Your task to perform on an android device: Add logitech g933 to the cart on amazon, then select checkout. Image 0: 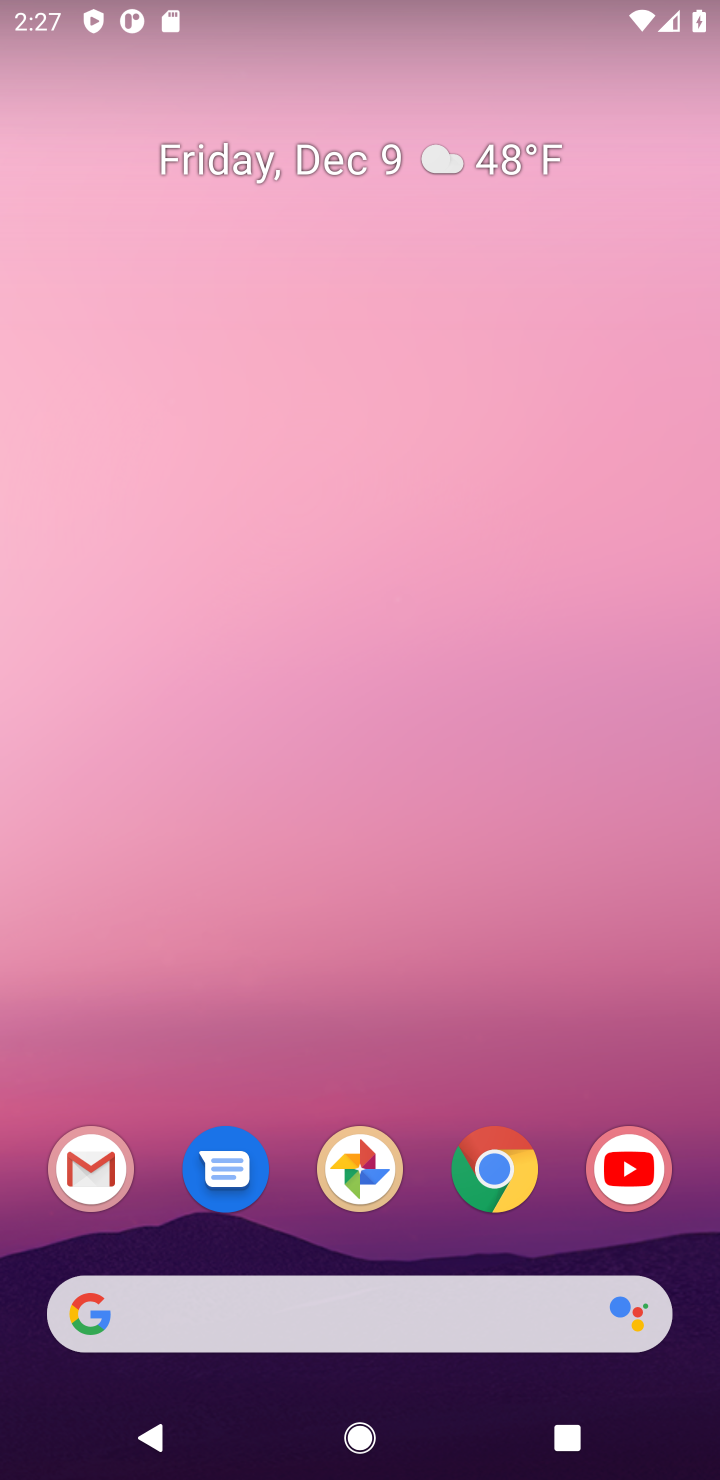
Step 0: click (484, 1188)
Your task to perform on an android device: Add logitech g933 to the cart on amazon, then select checkout. Image 1: 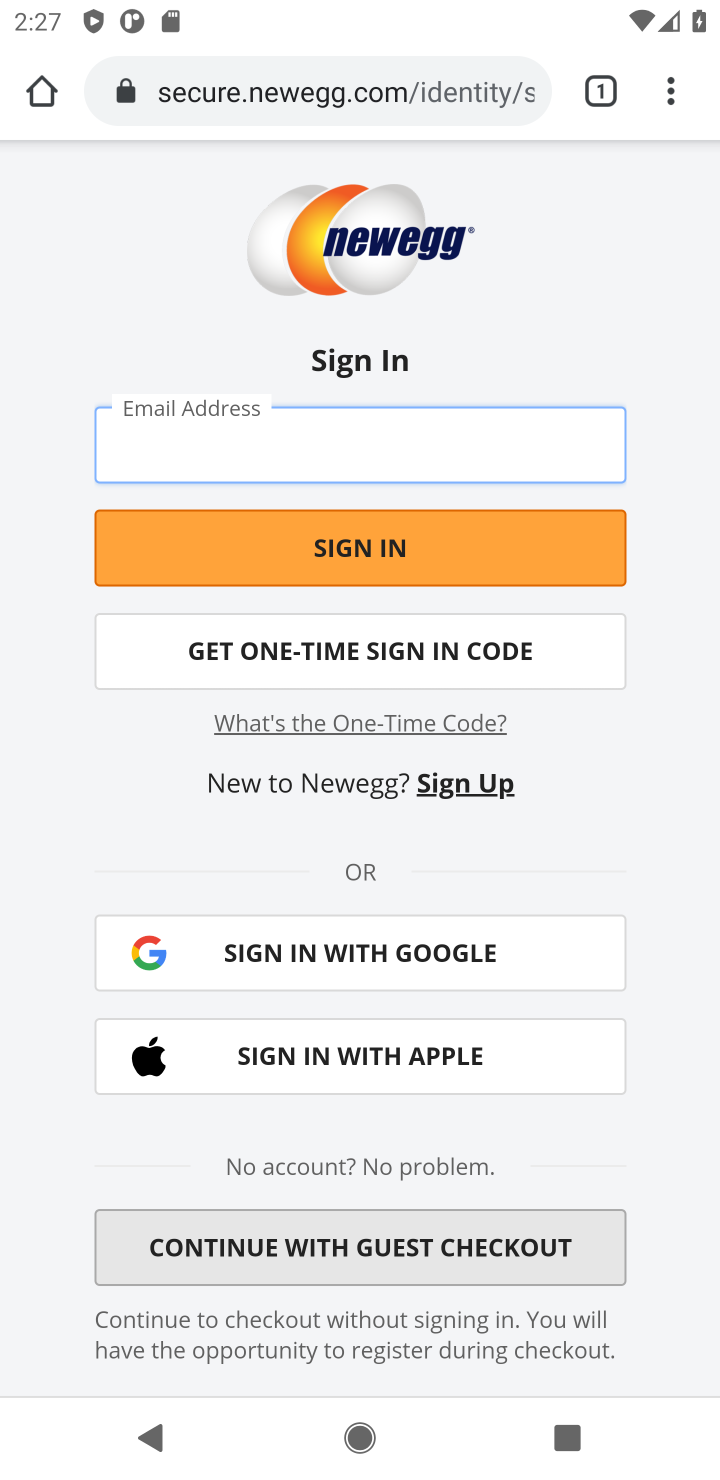
Step 1: click (444, 86)
Your task to perform on an android device: Add logitech g933 to the cart on amazon, then select checkout. Image 2: 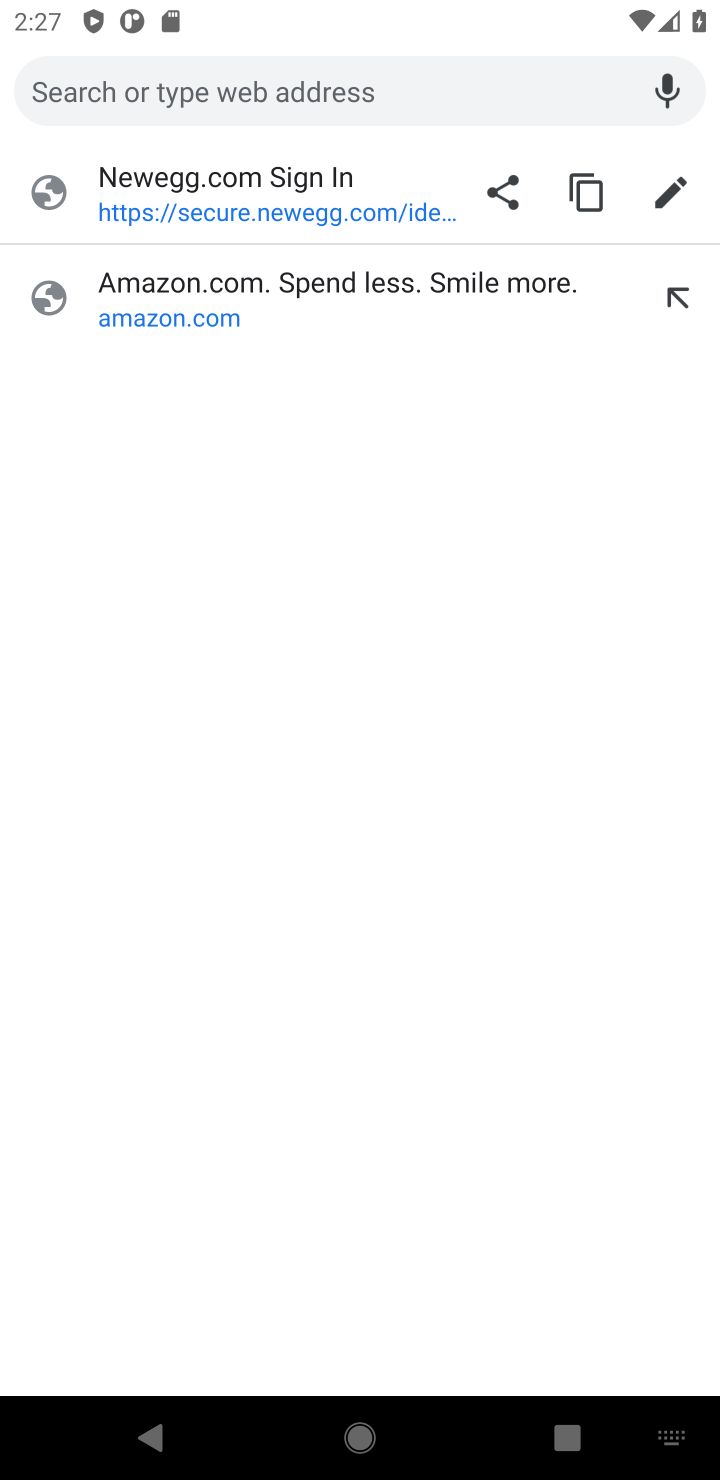
Step 2: press enter
Your task to perform on an android device: Add logitech g933 to the cart on amazon, then select checkout. Image 3: 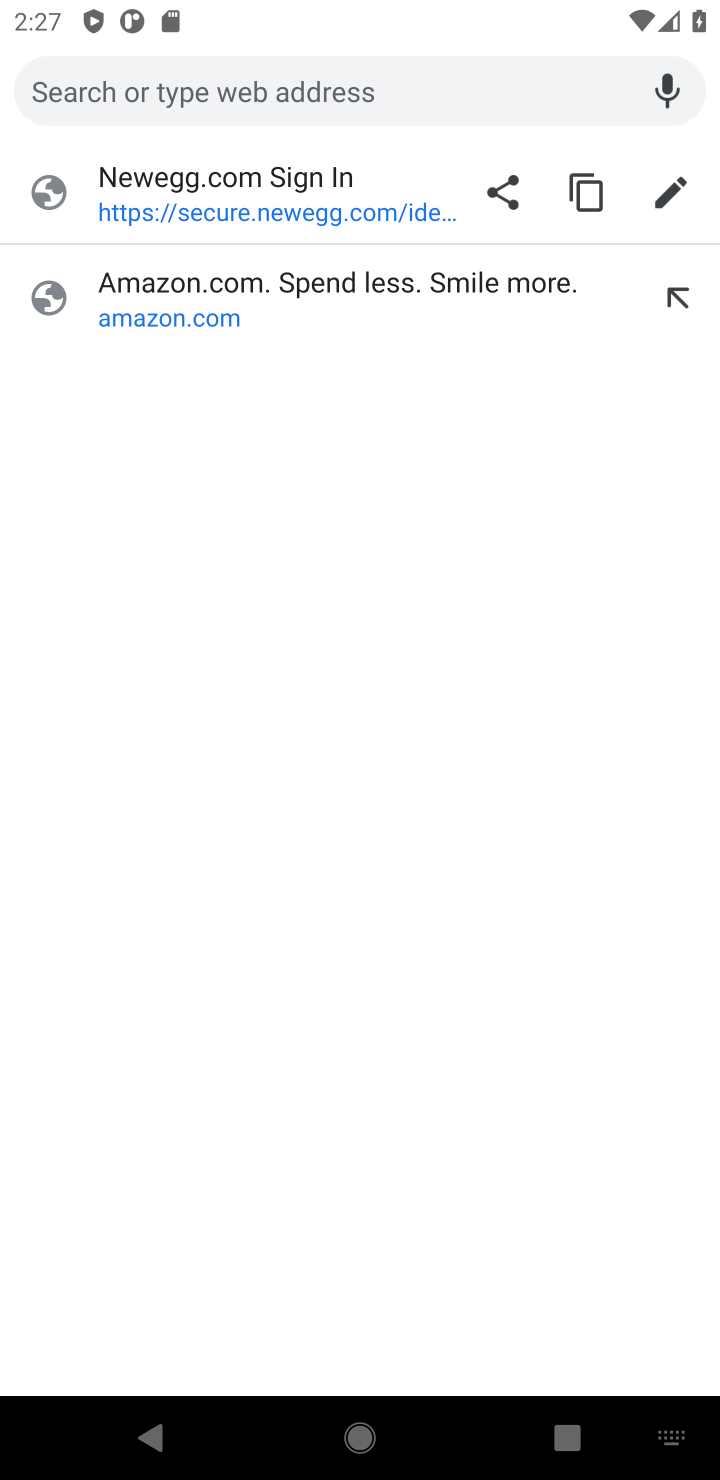
Step 3: type "amazon"
Your task to perform on an android device: Add logitech g933 to the cart on amazon, then select checkout. Image 4: 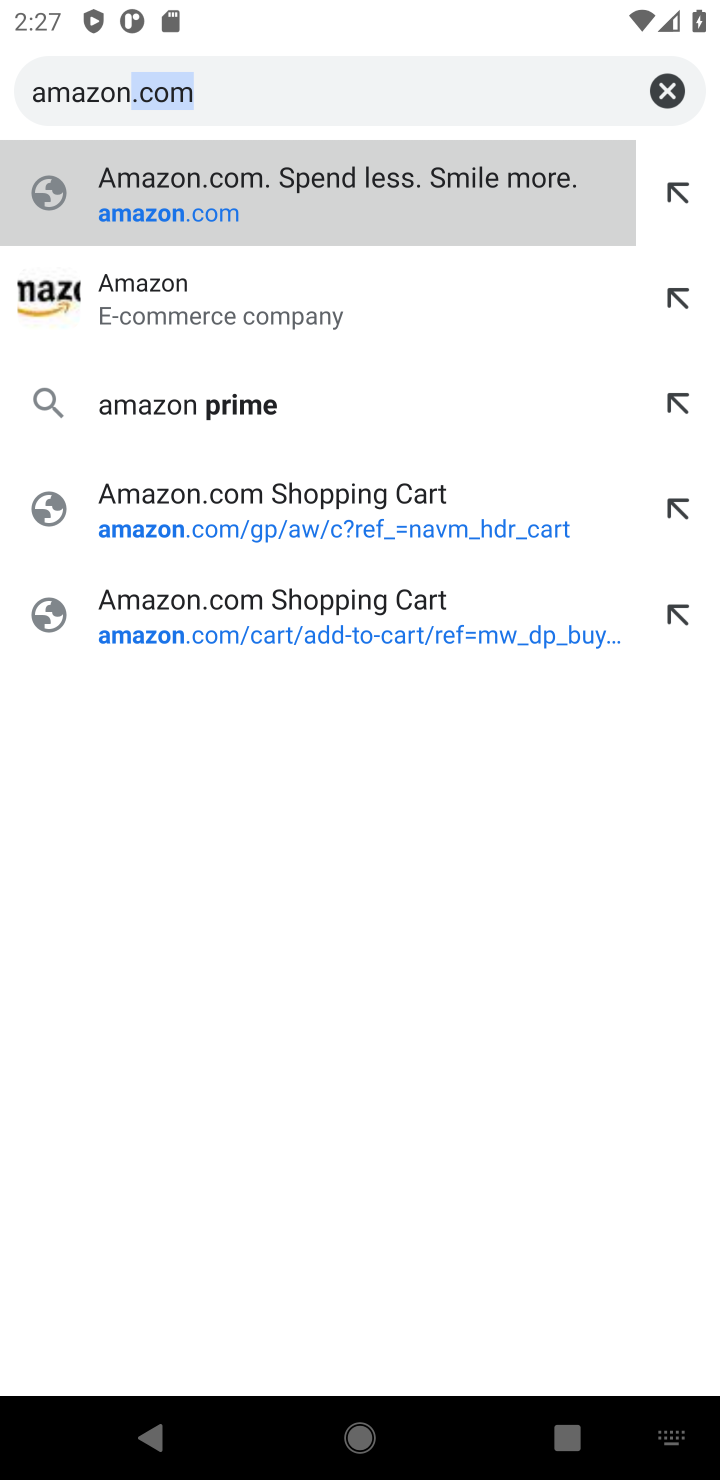
Step 4: click (416, 86)
Your task to perform on an android device: Add logitech g933 to the cart on amazon, then select checkout. Image 5: 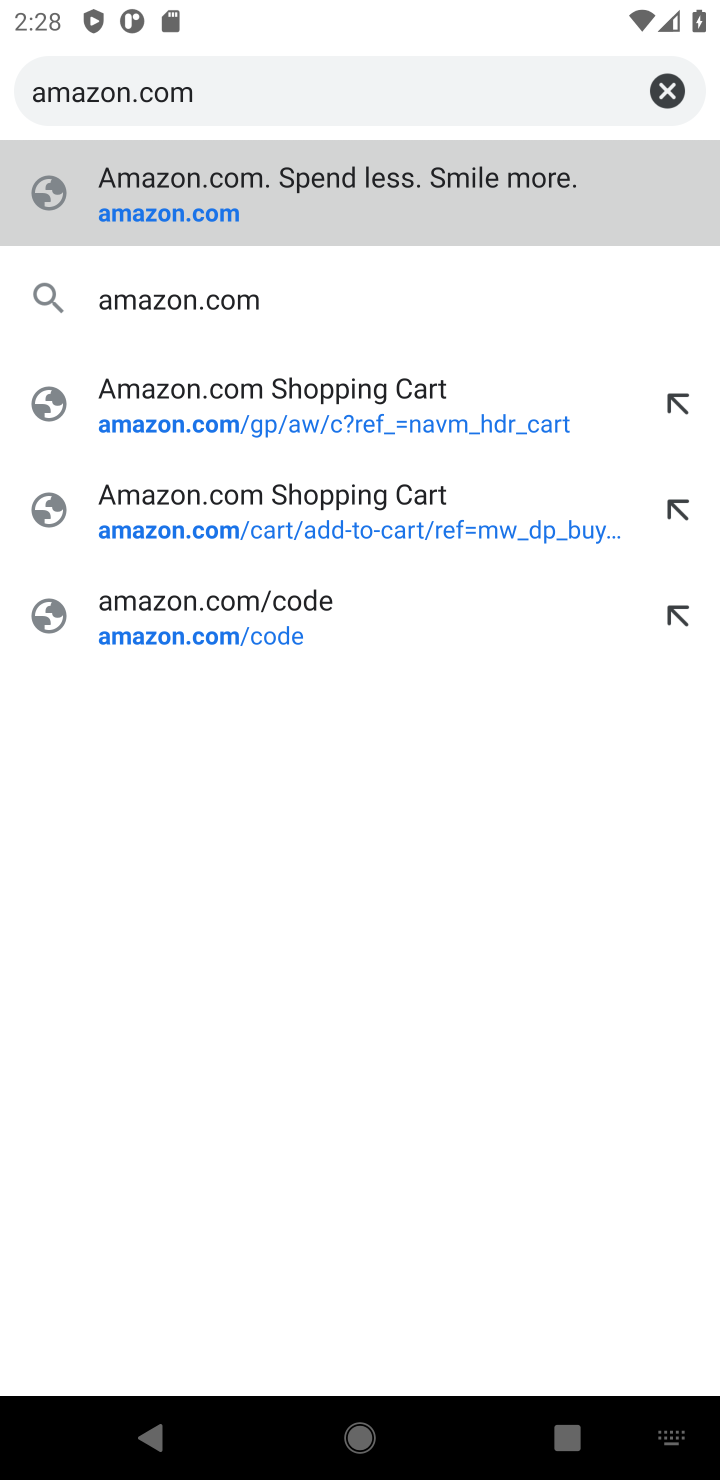
Step 5: click (202, 306)
Your task to perform on an android device: Add logitech g933 to the cart on amazon, then select checkout. Image 6: 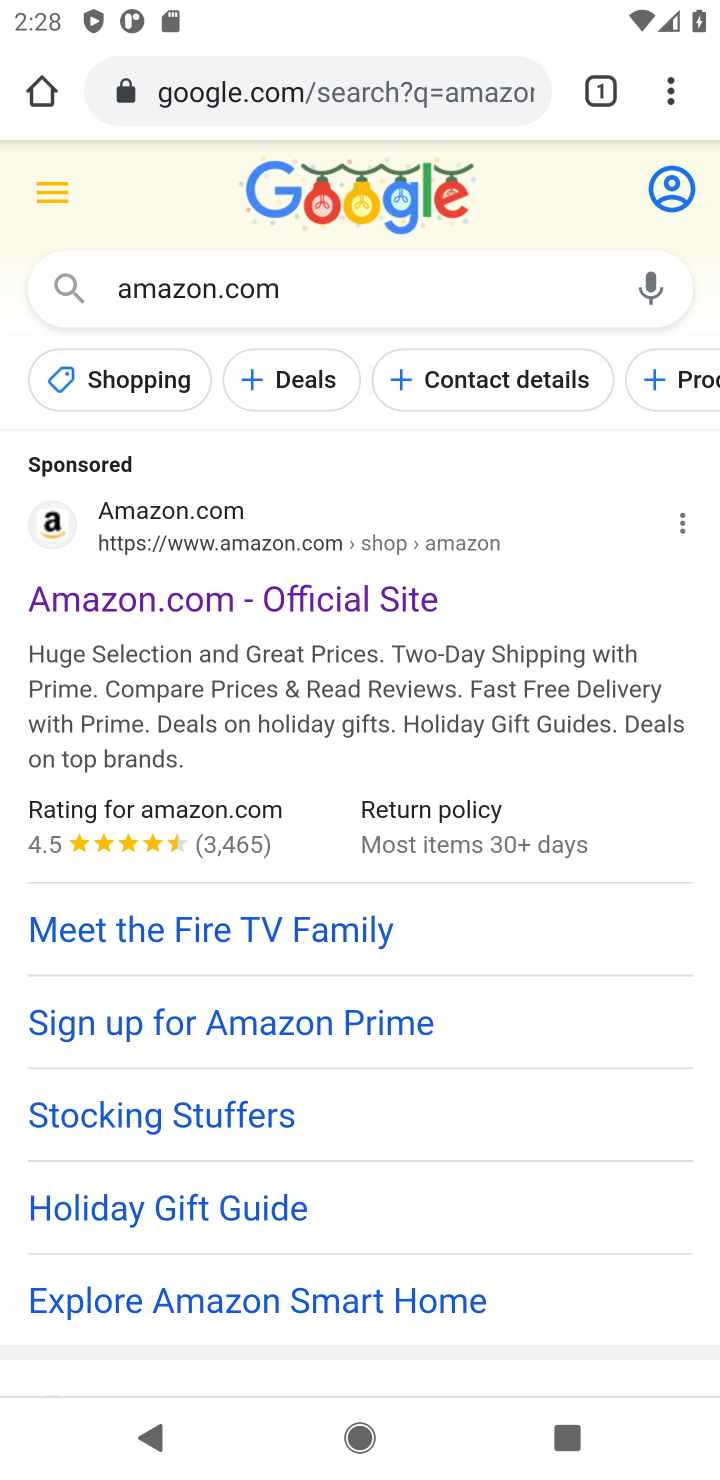
Step 6: click (231, 552)
Your task to perform on an android device: Add logitech g933 to the cart on amazon, then select checkout. Image 7: 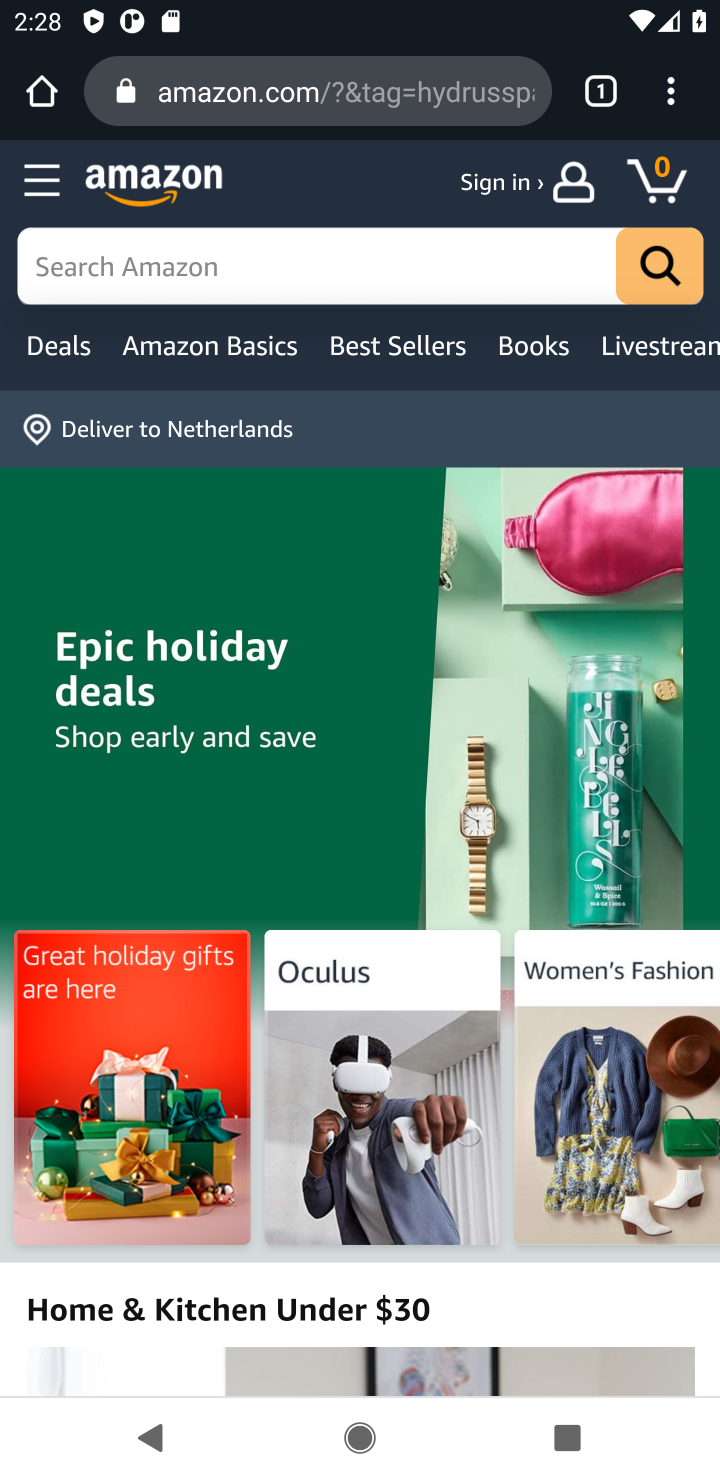
Step 7: click (416, 258)
Your task to perform on an android device: Add logitech g933 to the cart on amazon, then select checkout. Image 8: 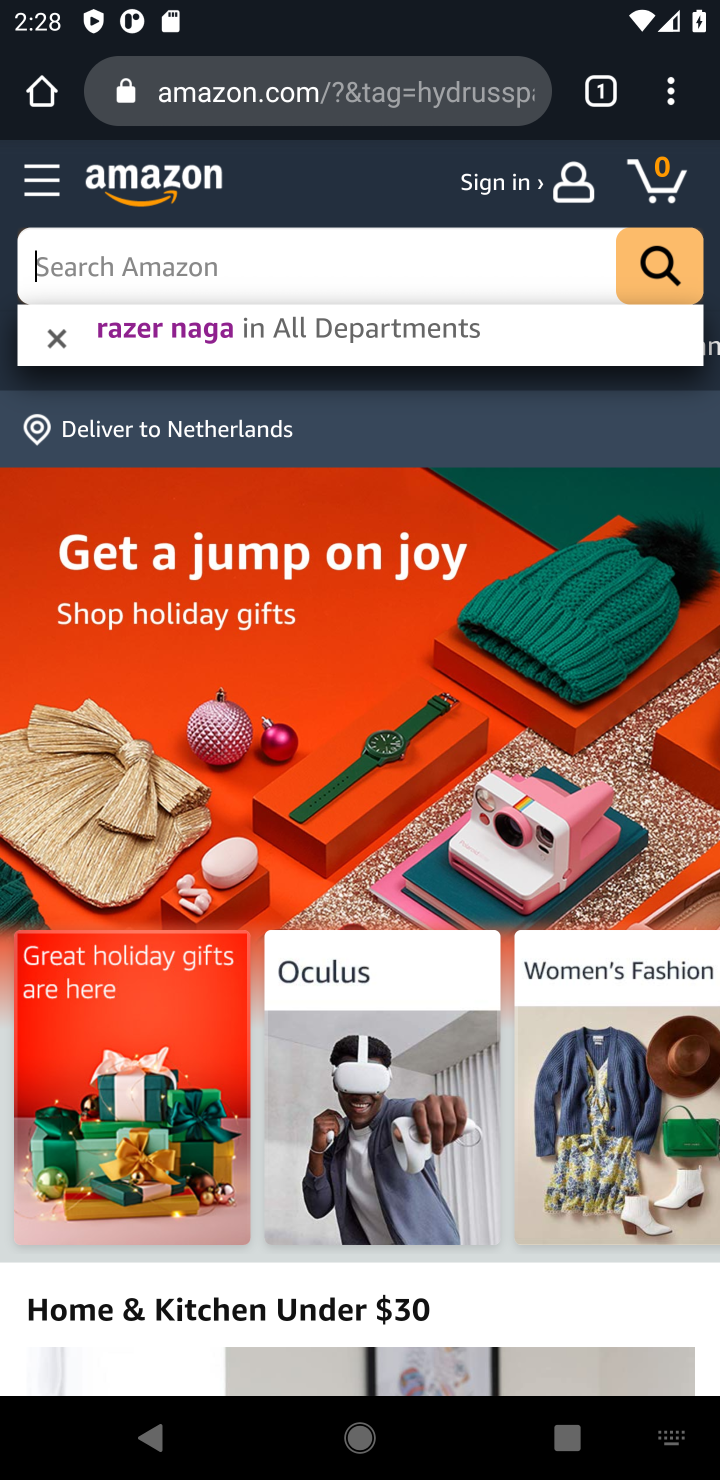
Step 8: press enter
Your task to perform on an android device: Add logitech g933 to the cart on amazon, then select checkout. Image 9: 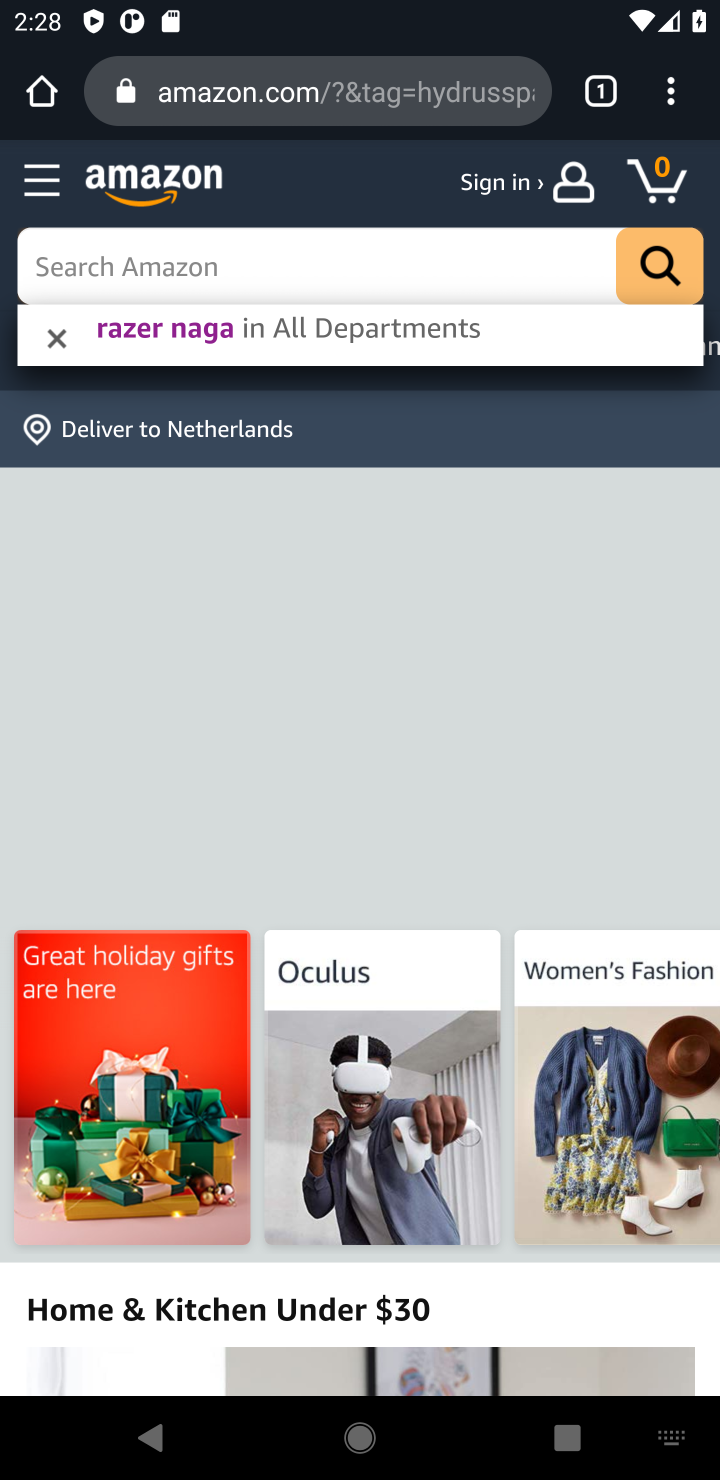
Step 9: type "logitech g933"
Your task to perform on an android device: Add logitech g933 to the cart on amazon, then select checkout. Image 10: 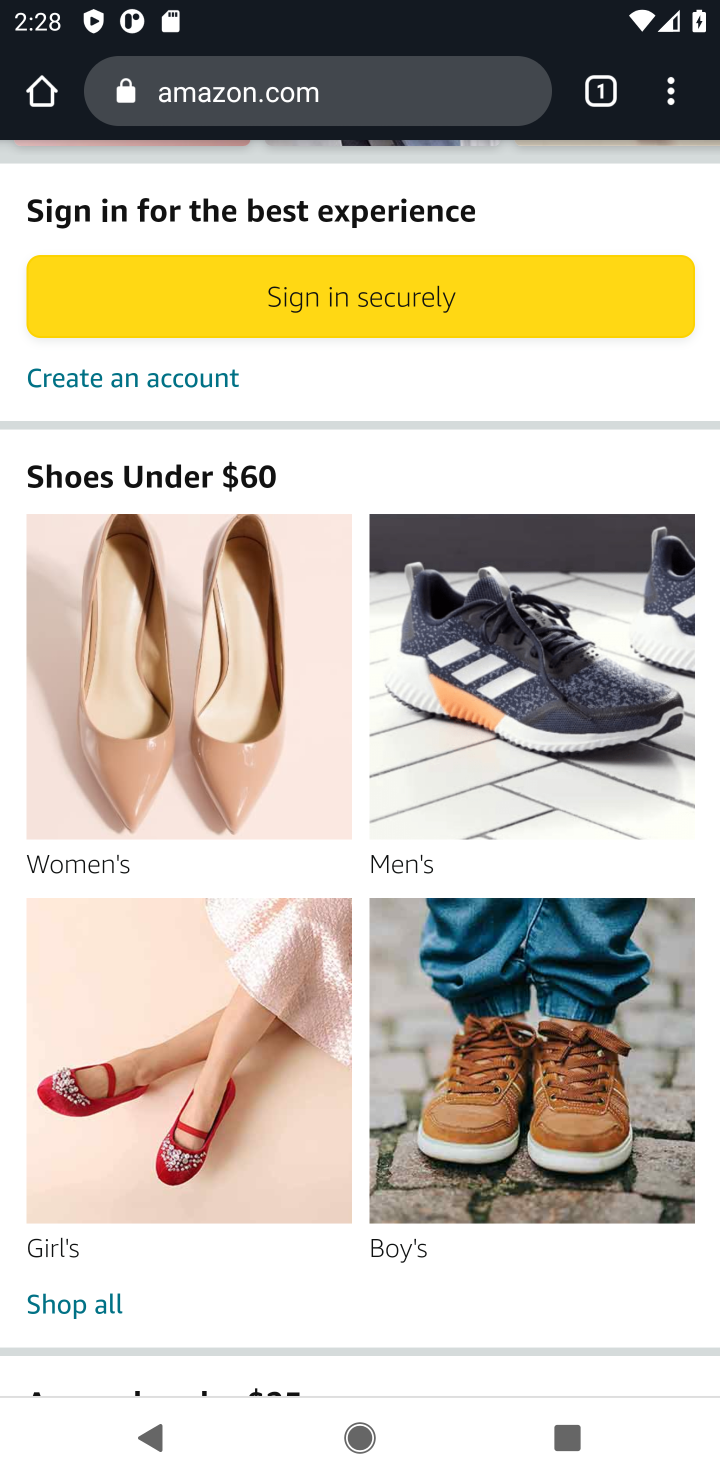
Step 10: press back button
Your task to perform on an android device: Add logitech g933 to the cart on amazon, then select checkout. Image 11: 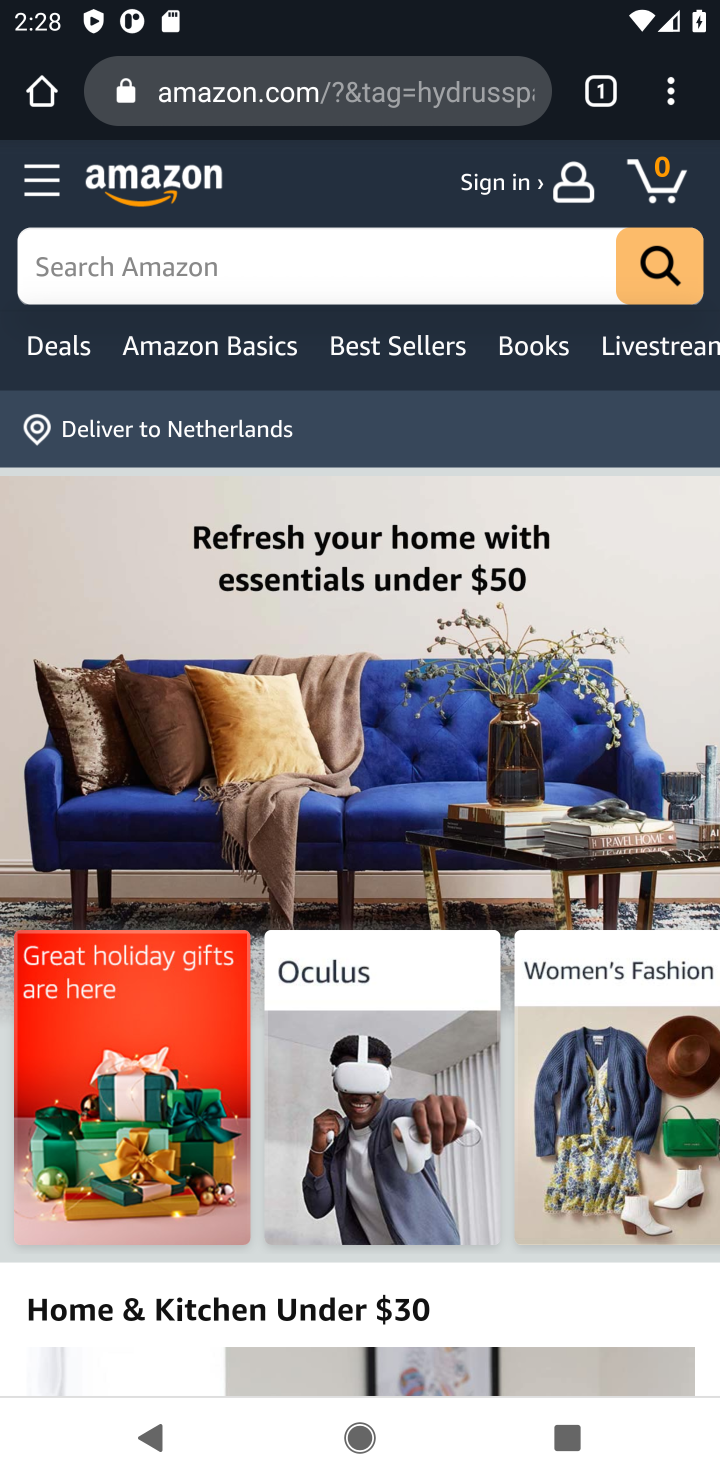
Step 11: click (521, 263)
Your task to perform on an android device: Add logitech g933 to the cart on amazon, then select checkout. Image 12: 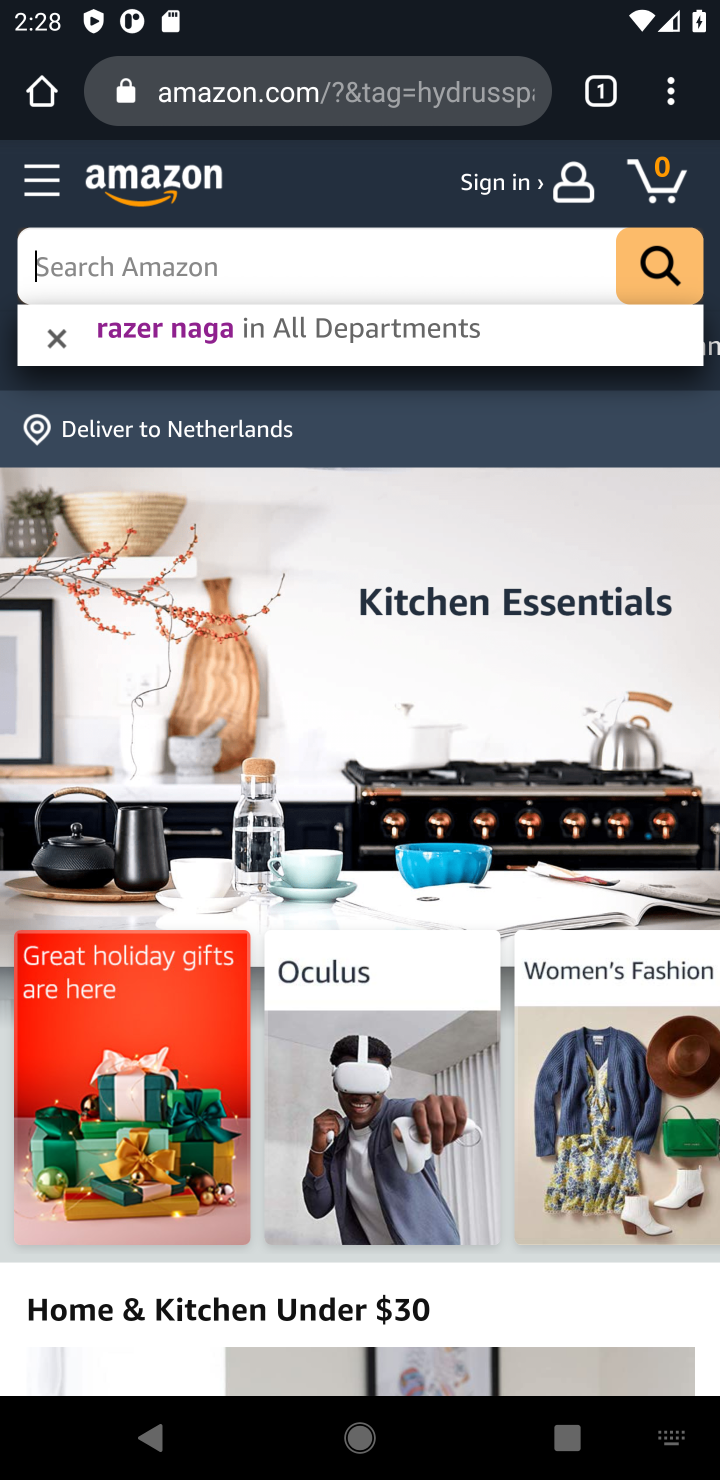
Step 12: press enter
Your task to perform on an android device: Add logitech g933 to the cart on amazon, then select checkout. Image 13: 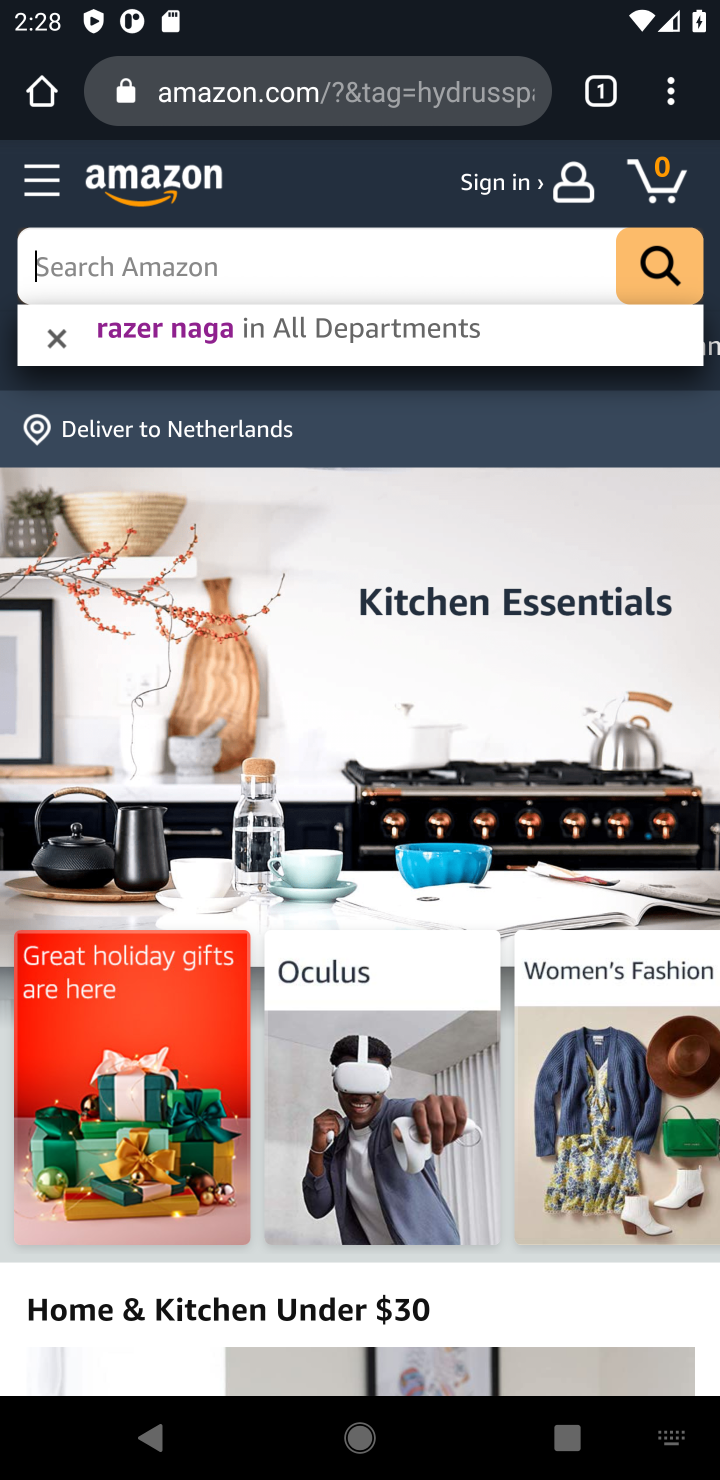
Step 13: type "logitech g933"
Your task to perform on an android device: Add logitech g933 to the cart on amazon, then select checkout. Image 14: 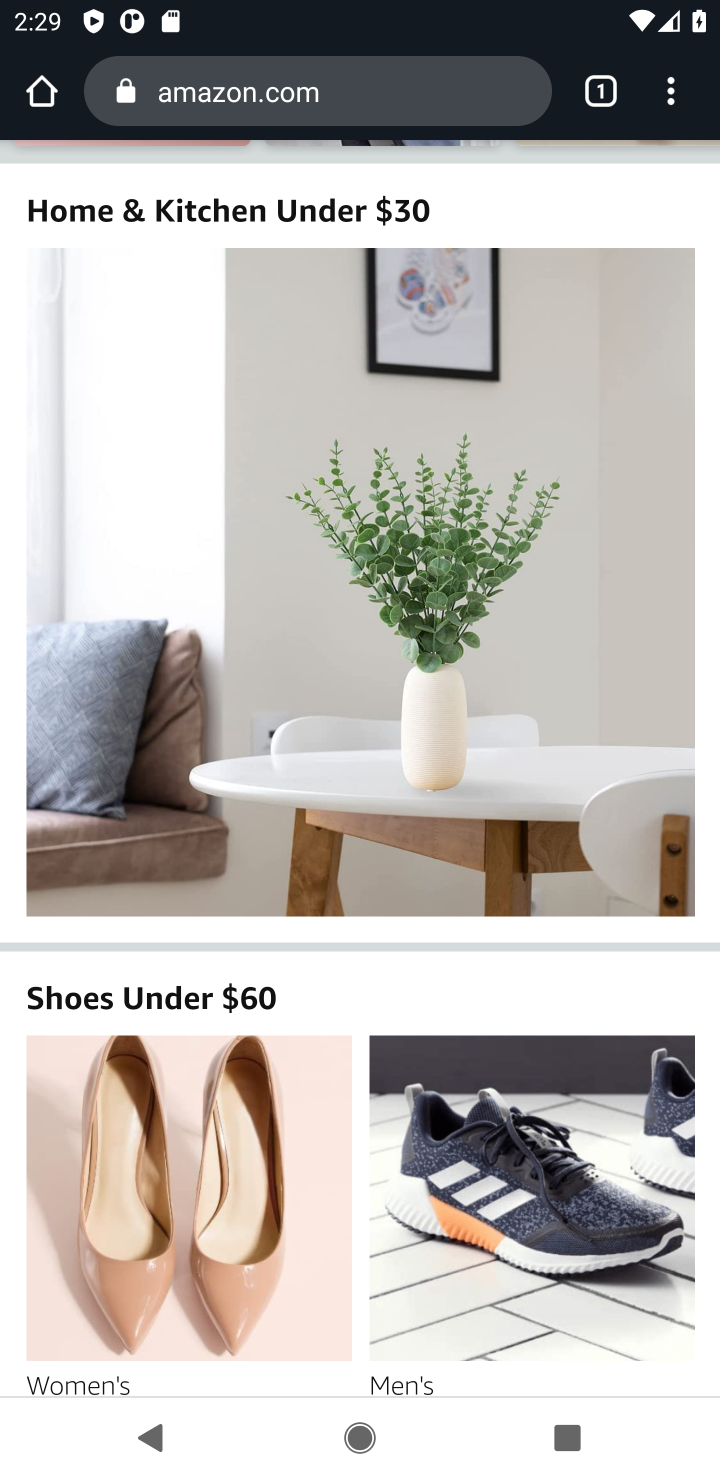
Step 14: press back button
Your task to perform on an android device: Add logitech g933 to the cart on amazon, then select checkout. Image 15: 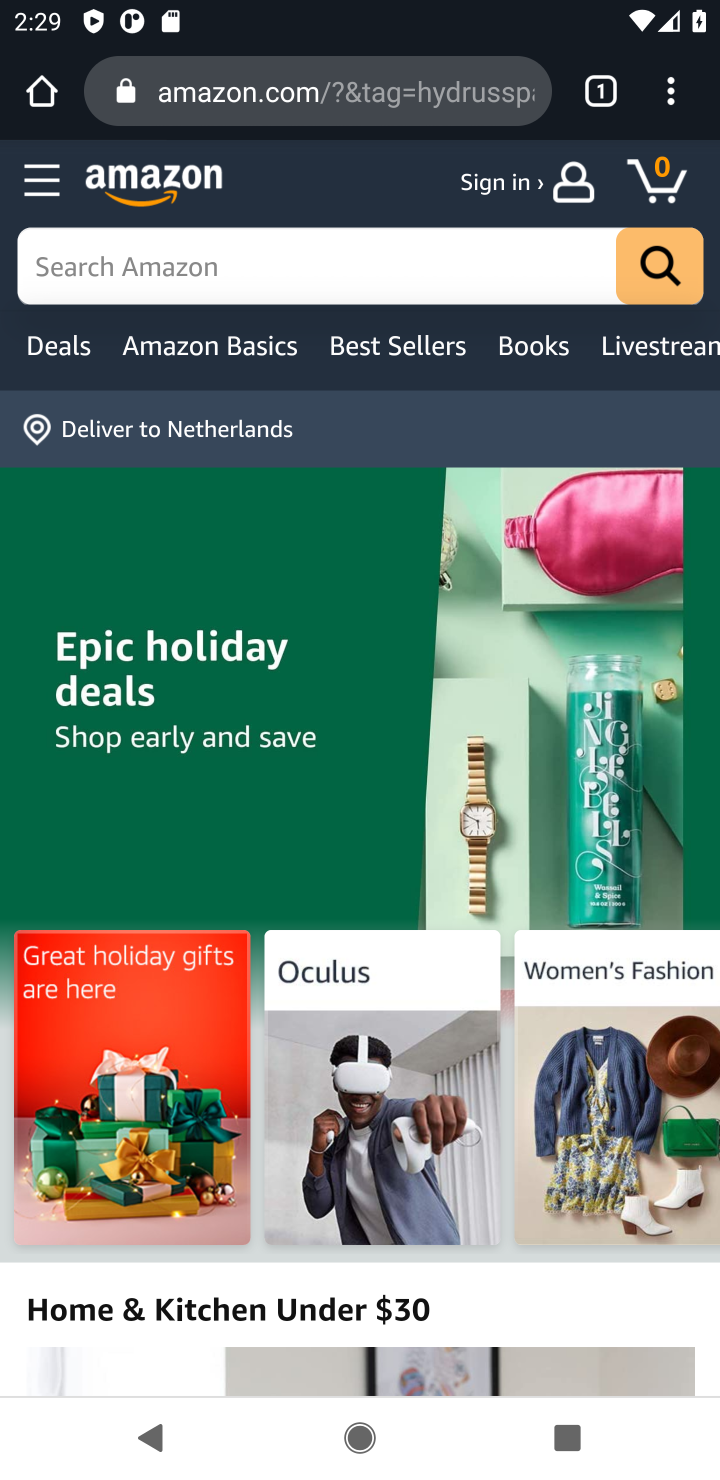
Step 15: click (506, 269)
Your task to perform on an android device: Add logitech g933 to the cart on amazon, then select checkout. Image 16: 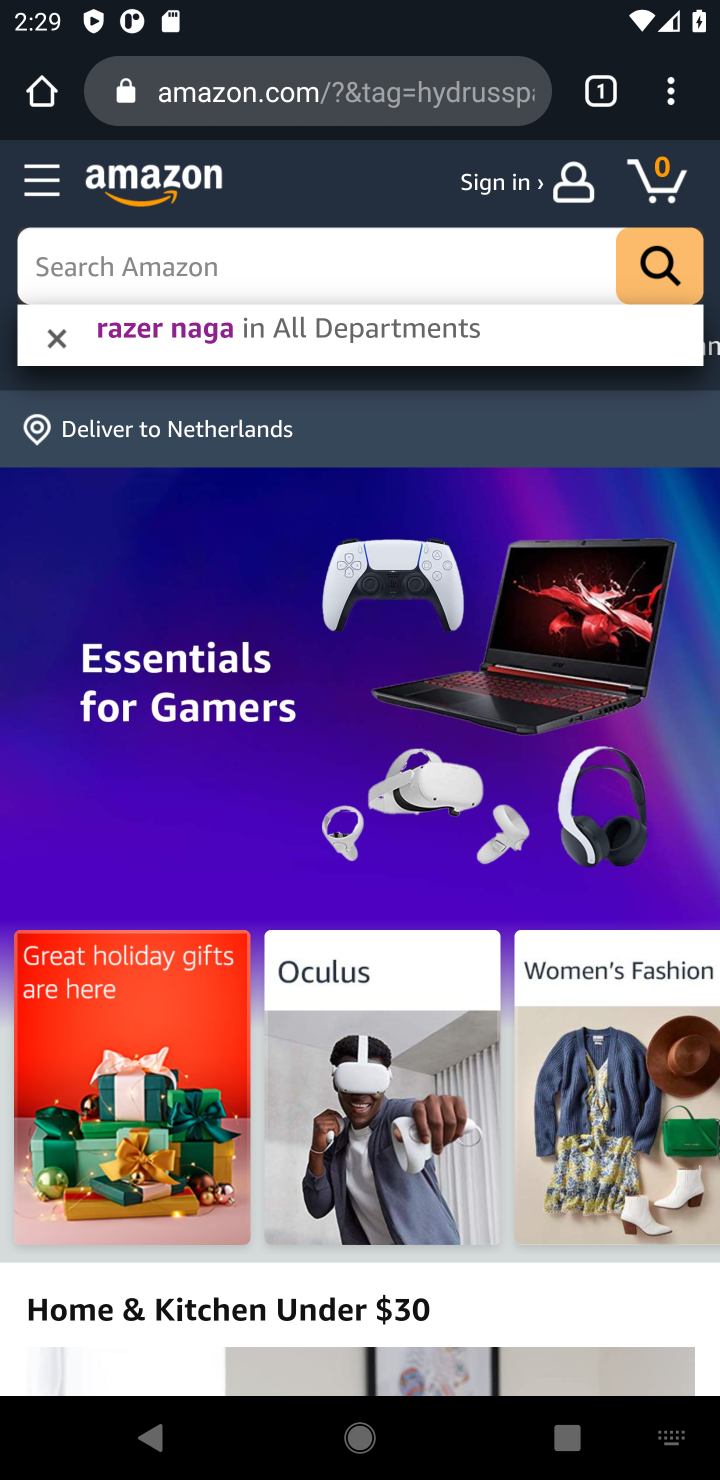
Step 16: press enter
Your task to perform on an android device: Add logitech g933 to the cart on amazon, then select checkout. Image 17: 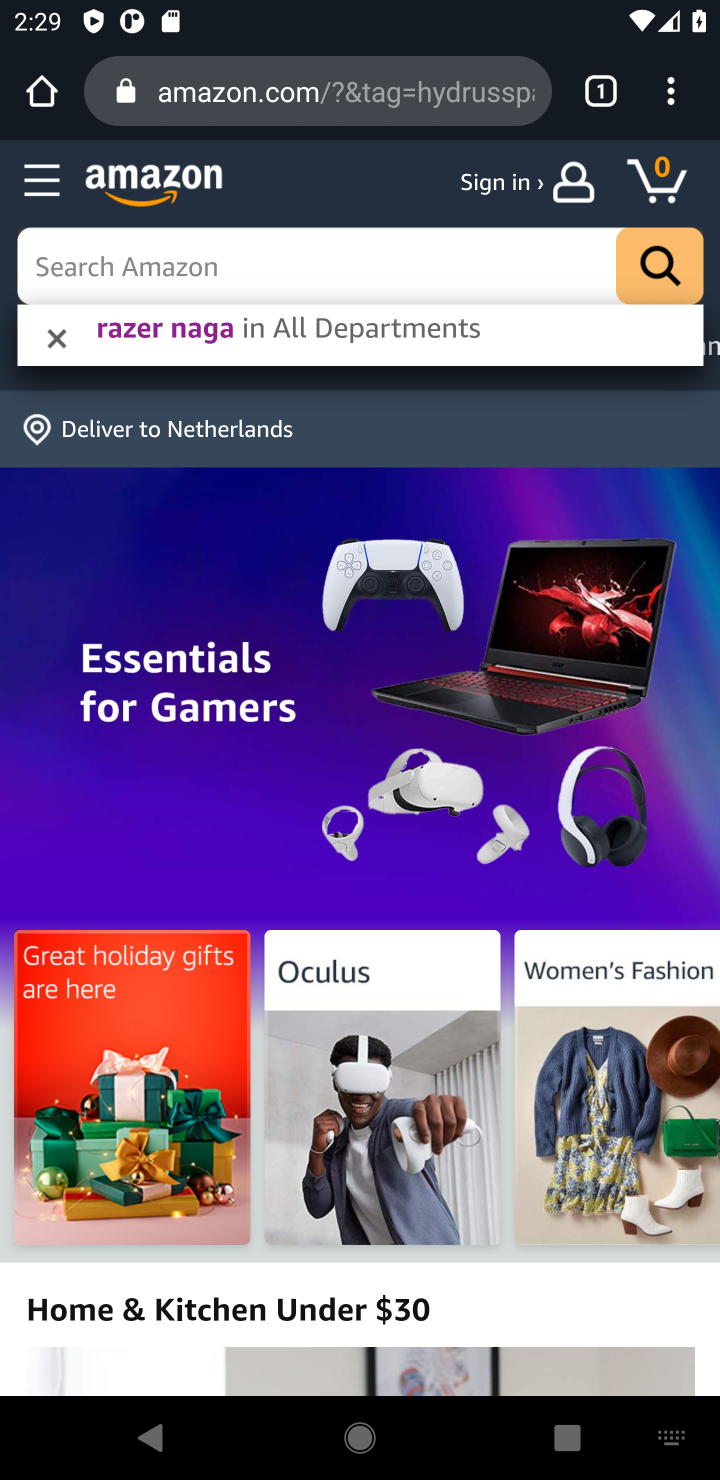
Step 17: type "logitech g933"
Your task to perform on an android device: Add logitech g933 to the cart on amazon, then select checkout. Image 18: 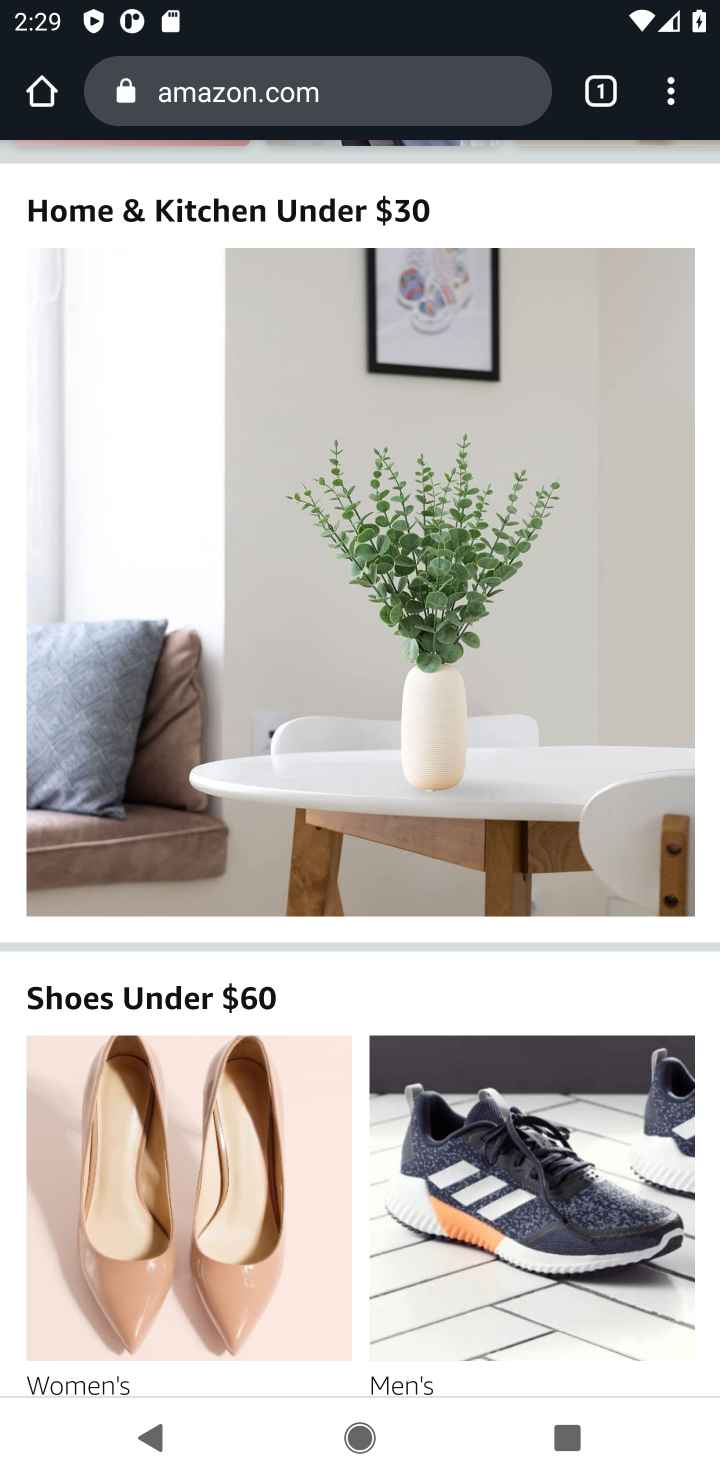
Step 18: task complete